Your task to perform on an android device: turn vacation reply on in the gmail app Image 0: 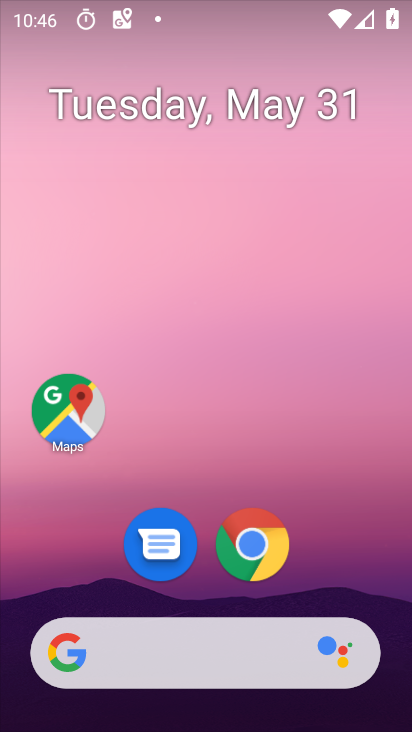
Step 0: drag from (209, 592) to (211, 95)
Your task to perform on an android device: turn vacation reply on in the gmail app Image 1: 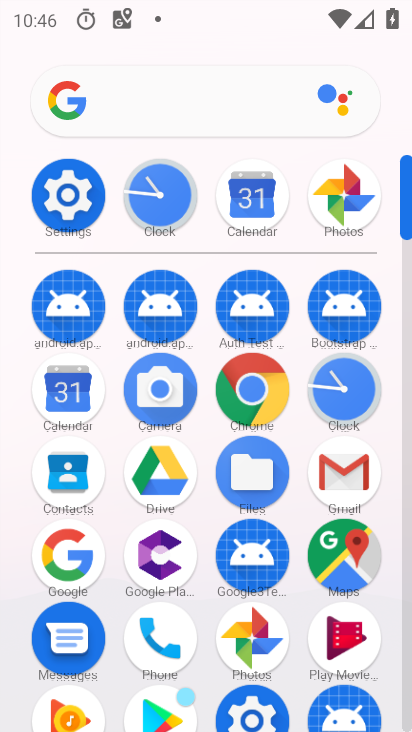
Step 1: click (363, 494)
Your task to perform on an android device: turn vacation reply on in the gmail app Image 2: 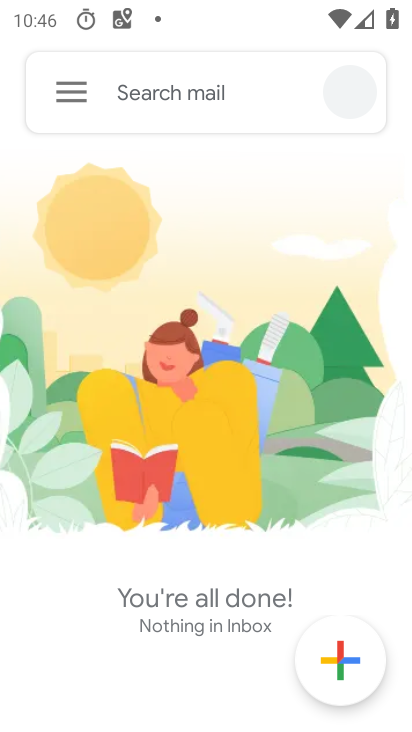
Step 2: click (67, 79)
Your task to perform on an android device: turn vacation reply on in the gmail app Image 3: 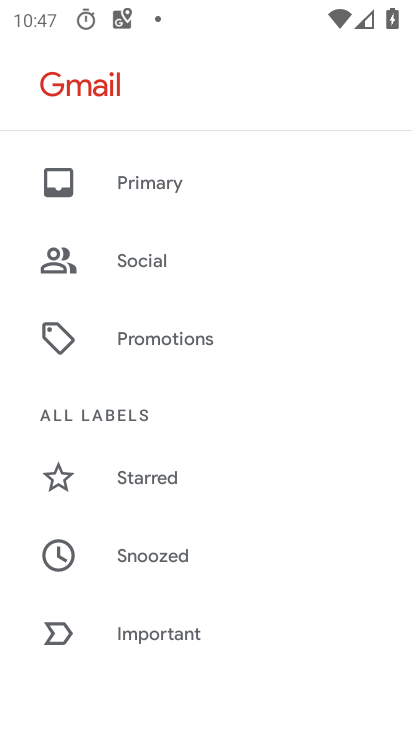
Step 3: drag from (226, 584) to (223, 211)
Your task to perform on an android device: turn vacation reply on in the gmail app Image 4: 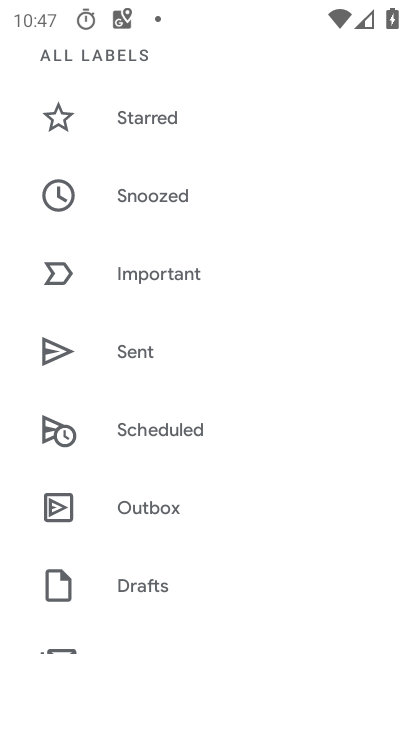
Step 4: drag from (200, 597) to (200, 327)
Your task to perform on an android device: turn vacation reply on in the gmail app Image 5: 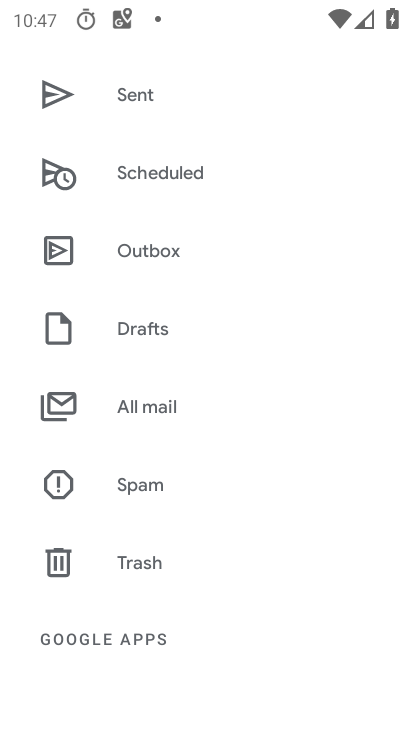
Step 5: drag from (202, 564) to (204, 215)
Your task to perform on an android device: turn vacation reply on in the gmail app Image 6: 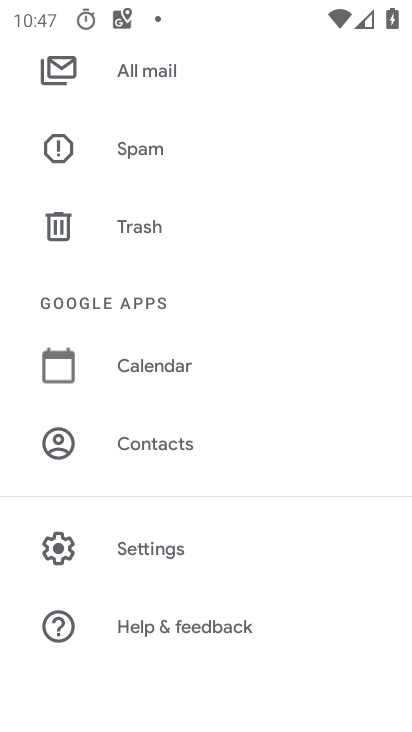
Step 6: click (219, 540)
Your task to perform on an android device: turn vacation reply on in the gmail app Image 7: 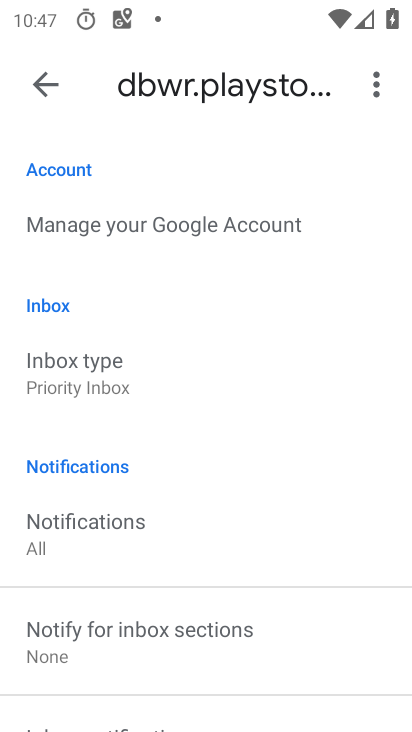
Step 7: drag from (217, 595) to (223, 218)
Your task to perform on an android device: turn vacation reply on in the gmail app Image 8: 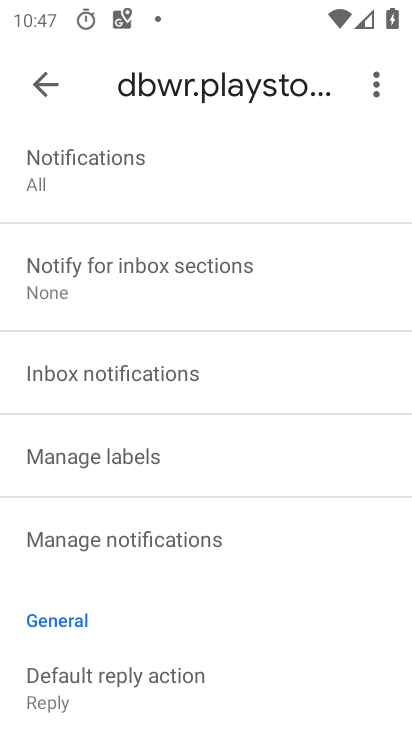
Step 8: drag from (251, 543) to (230, 231)
Your task to perform on an android device: turn vacation reply on in the gmail app Image 9: 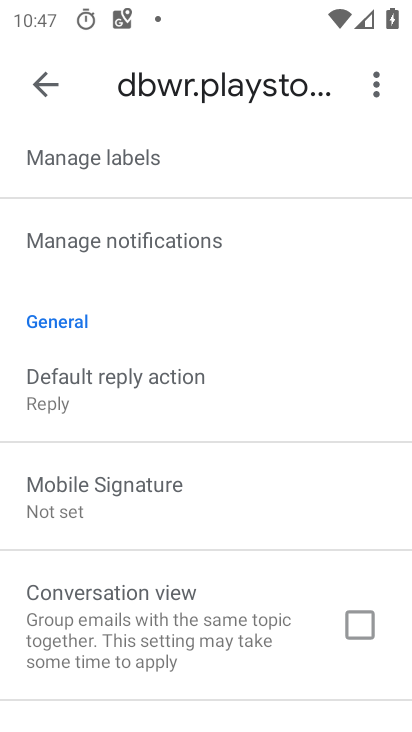
Step 9: drag from (238, 534) to (218, 304)
Your task to perform on an android device: turn vacation reply on in the gmail app Image 10: 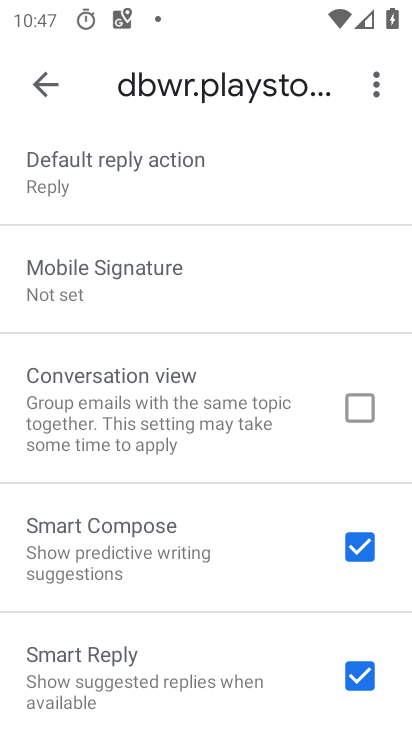
Step 10: drag from (243, 579) to (214, 202)
Your task to perform on an android device: turn vacation reply on in the gmail app Image 11: 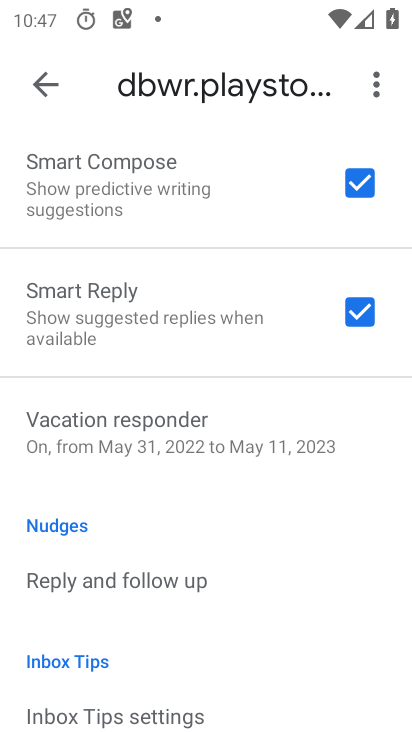
Step 11: click (228, 442)
Your task to perform on an android device: turn vacation reply on in the gmail app Image 12: 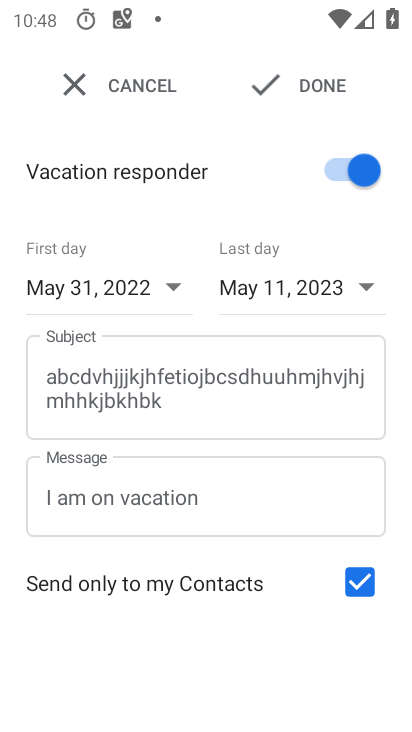
Step 12: task complete